Your task to perform on an android device: Open eBay Image 0: 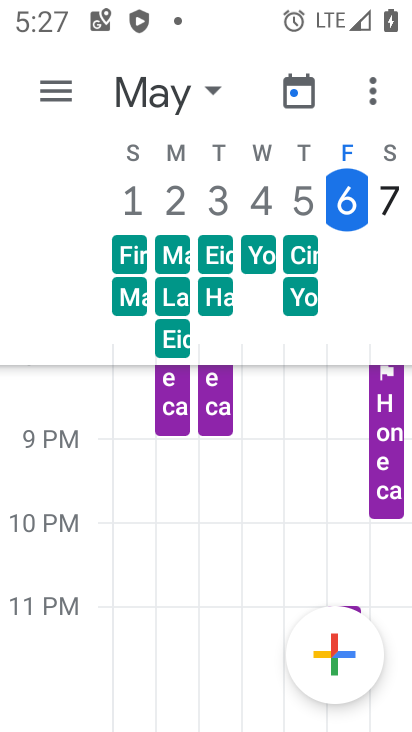
Step 0: press home button
Your task to perform on an android device: Open eBay Image 1: 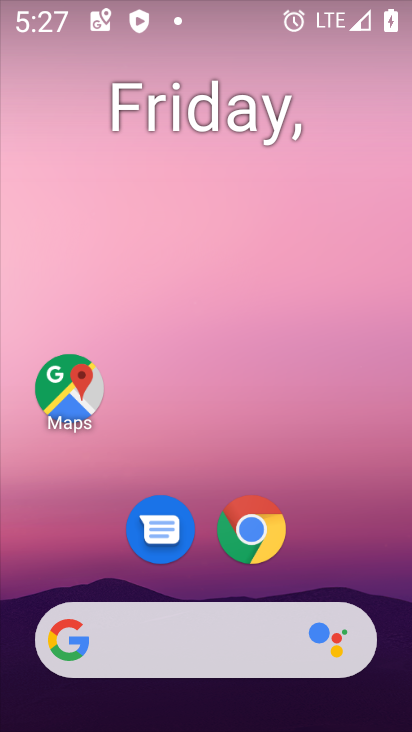
Step 1: click (259, 548)
Your task to perform on an android device: Open eBay Image 2: 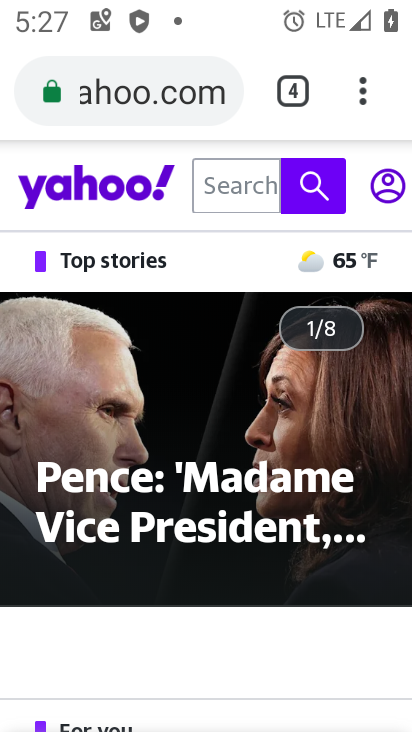
Step 2: click (290, 82)
Your task to perform on an android device: Open eBay Image 3: 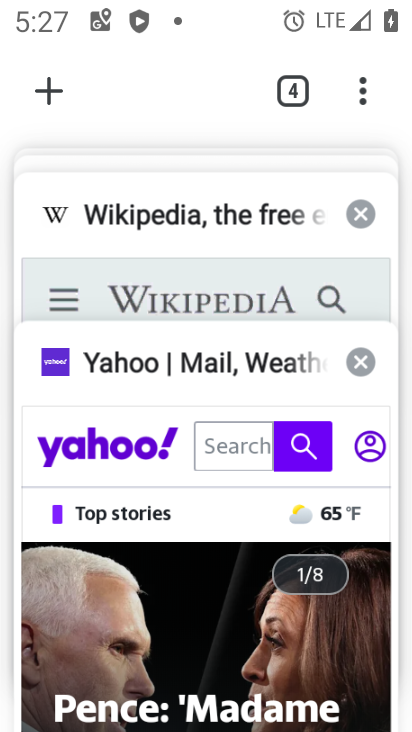
Step 3: click (33, 86)
Your task to perform on an android device: Open eBay Image 4: 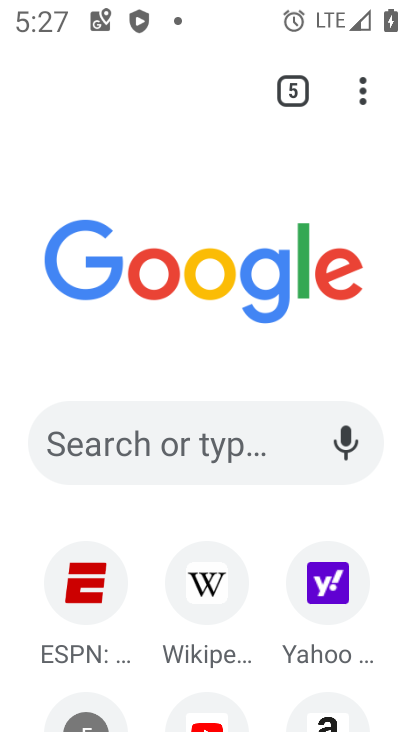
Step 4: drag from (252, 640) to (218, 356)
Your task to perform on an android device: Open eBay Image 5: 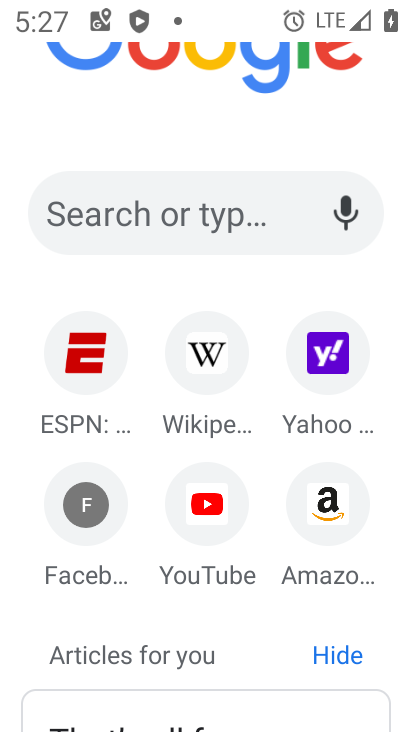
Step 5: click (204, 208)
Your task to perform on an android device: Open eBay Image 6: 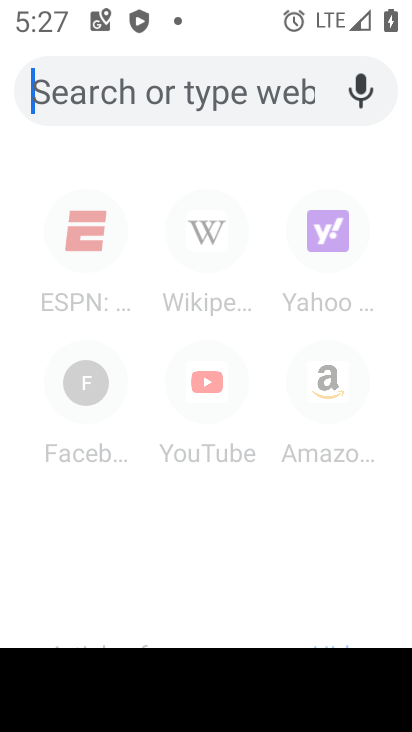
Step 6: type "eBay"
Your task to perform on an android device: Open eBay Image 7: 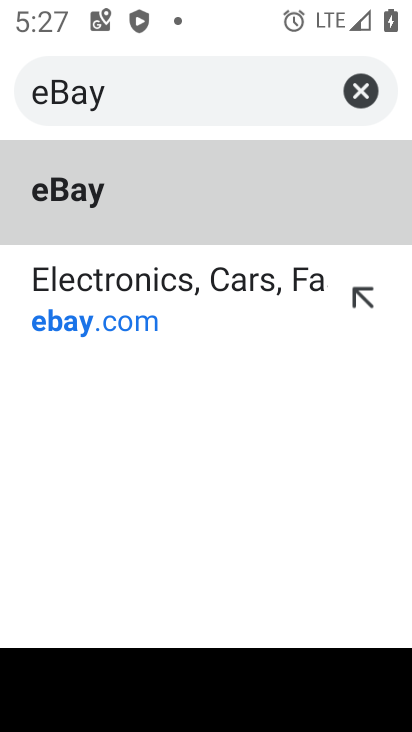
Step 7: click (100, 307)
Your task to perform on an android device: Open eBay Image 8: 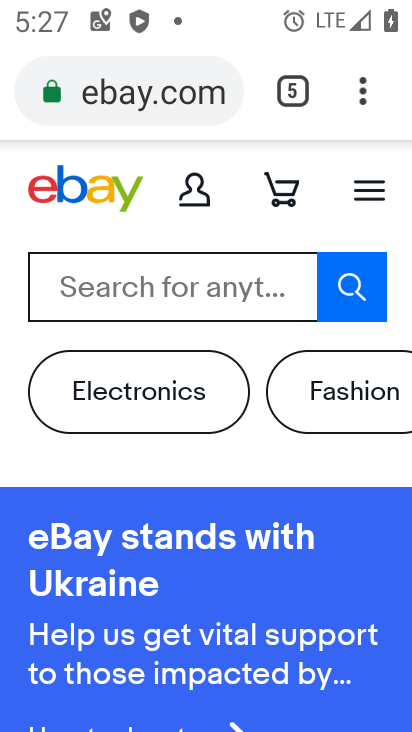
Step 8: task complete